Your task to perform on an android device: Open settings Image 0: 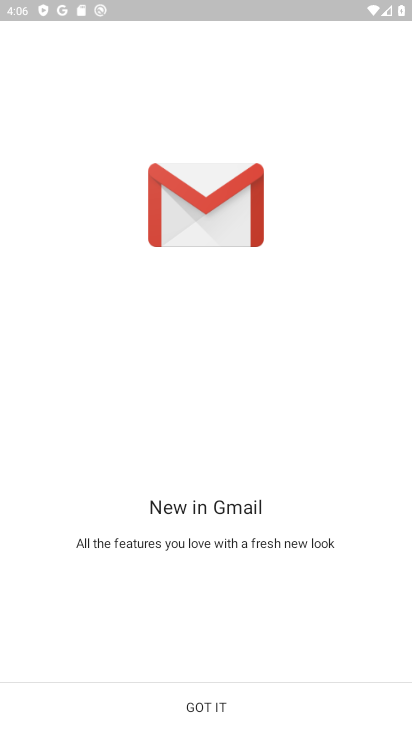
Step 0: press home button
Your task to perform on an android device: Open settings Image 1: 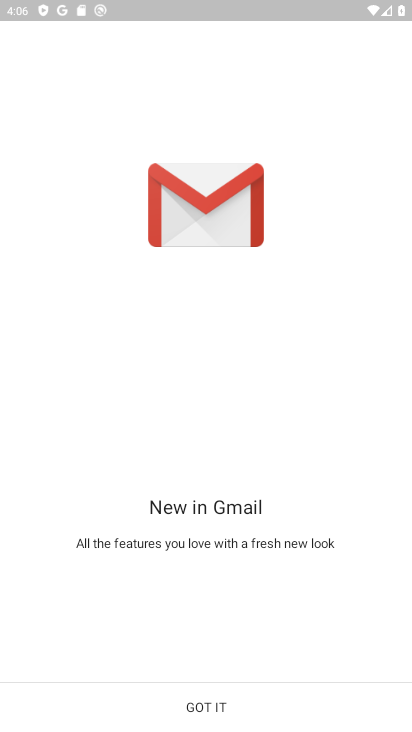
Step 1: press home button
Your task to perform on an android device: Open settings Image 2: 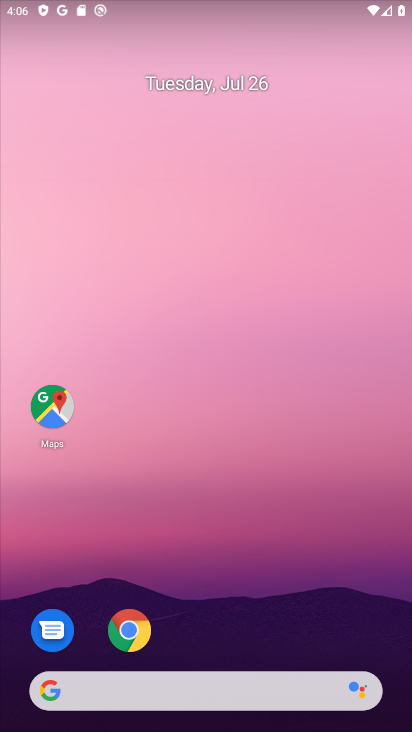
Step 2: drag from (309, 534) to (250, 103)
Your task to perform on an android device: Open settings Image 3: 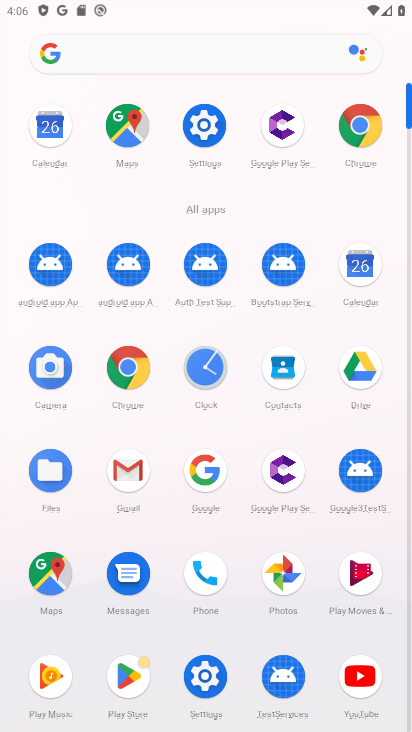
Step 3: click (192, 103)
Your task to perform on an android device: Open settings Image 4: 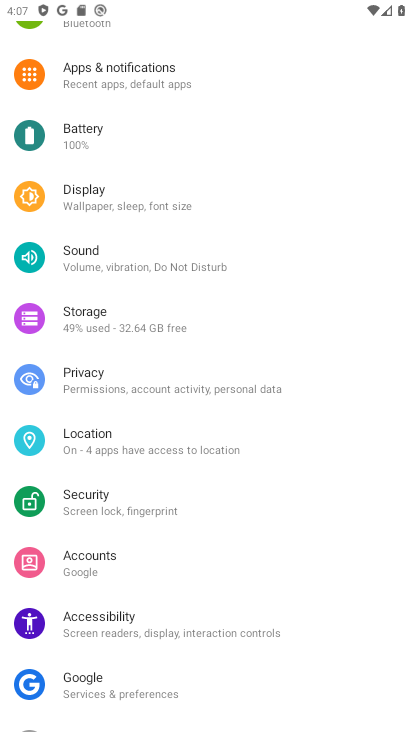
Step 4: task complete